Your task to perform on an android device: Search for pizza restaurants on Maps Image 0: 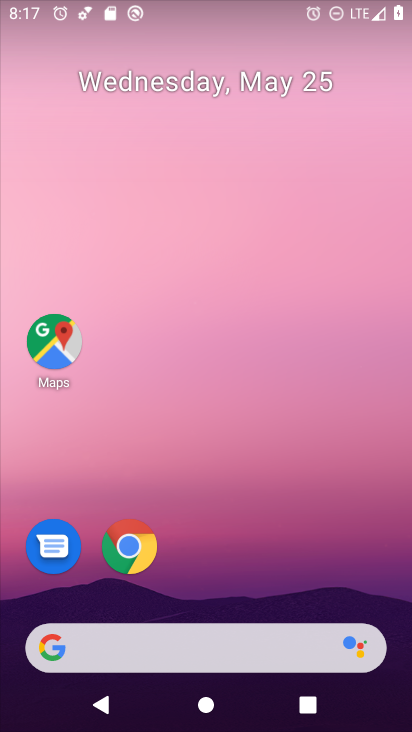
Step 0: drag from (365, 579) to (362, 334)
Your task to perform on an android device: Search for pizza restaurants on Maps Image 1: 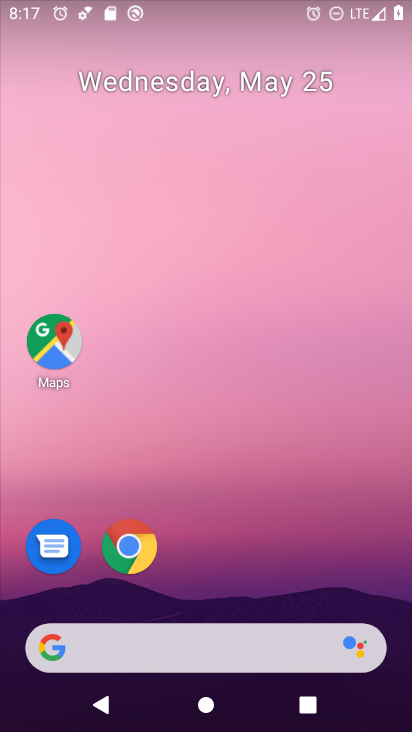
Step 1: drag from (385, 587) to (361, 283)
Your task to perform on an android device: Search for pizza restaurants on Maps Image 2: 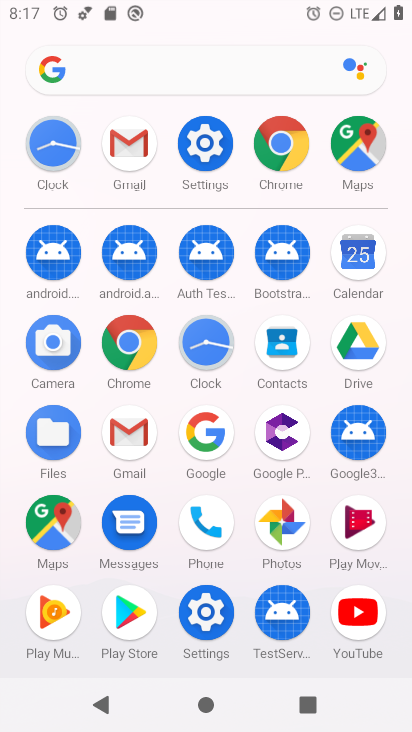
Step 2: click (61, 534)
Your task to perform on an android device: Search for pizza restaurants on Maps Image 3: 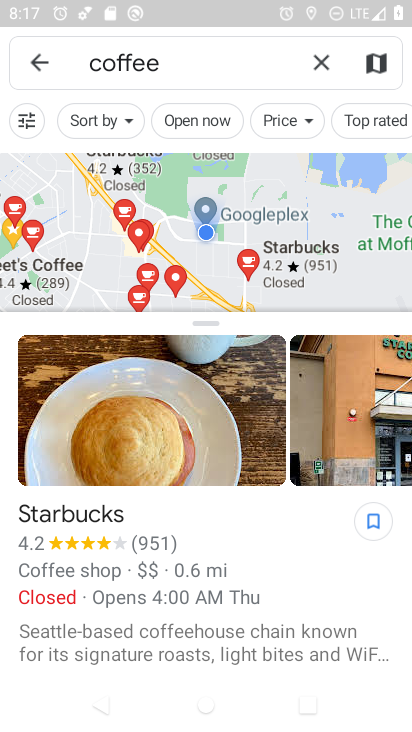
Step 3: click (328, 54)
Your task to perform on an android device: Search for pizza restaurants on Maps Image 4: 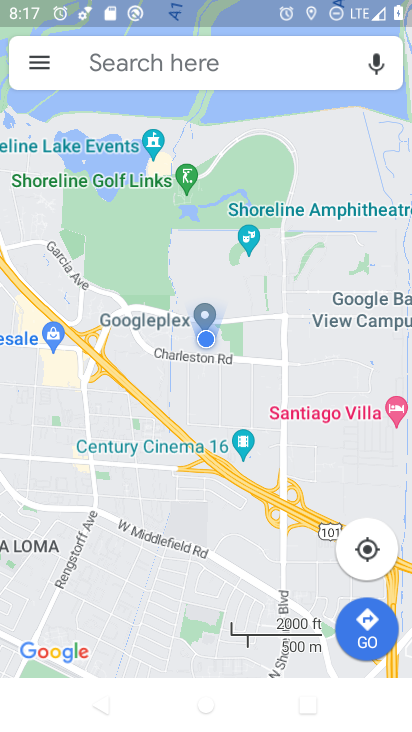
Step 4: click (266, 62)
Your task to perform on an android device: Search for pizza restaurants on Maps Image 5: 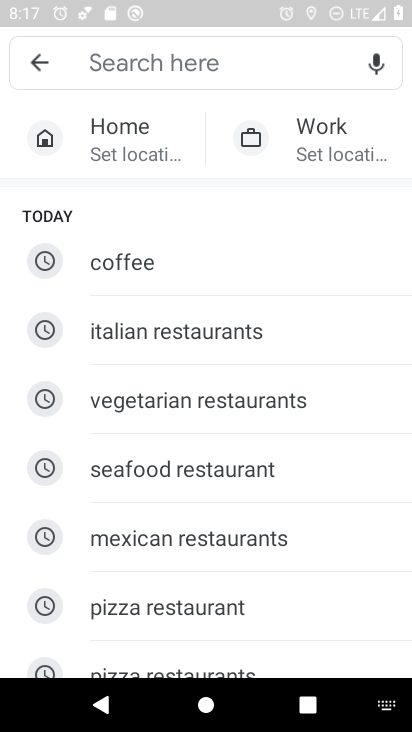
Step 5: type "pizzaa restaurants"
Your task to perform on an android device: Search for pizza restaurants on Maps Image 6: 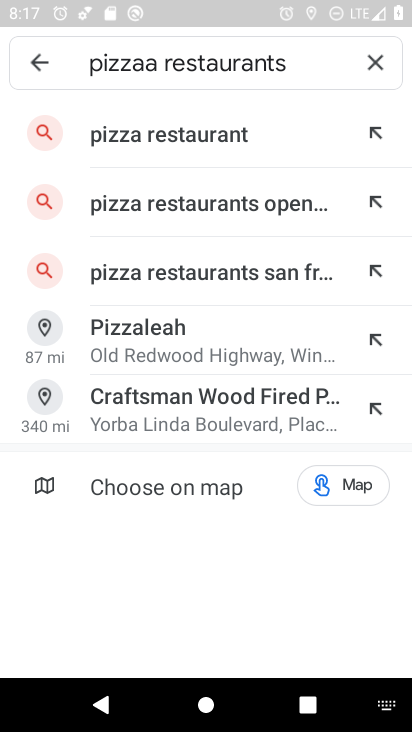
Step 6: click (215, 137)
Your task to perform on an android device: Search for pizza restaurants on Maps Image 7: 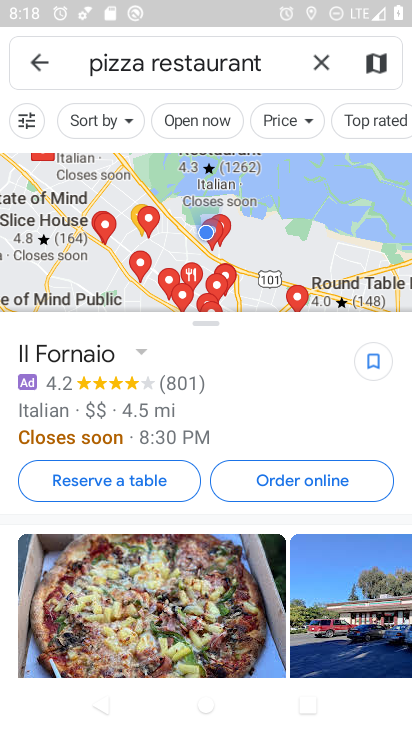
Step 7: task complete